Your task to perform on an android device: turn off notifications settings in the gmail app Image 0: 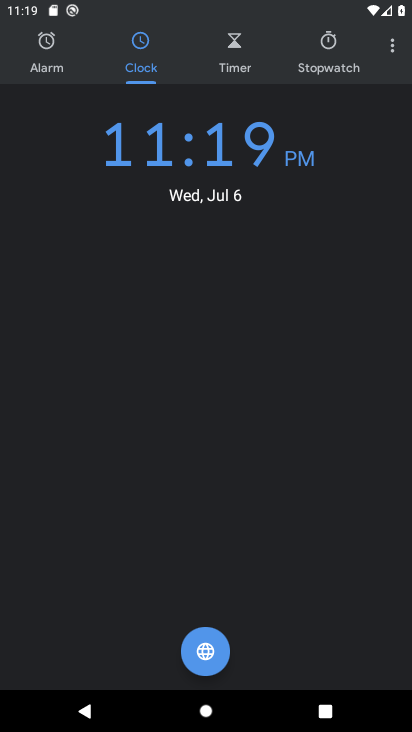
Step 0: press home button
Your task to perform on an android device: turn off notifications settings in the gmail app Image 1: 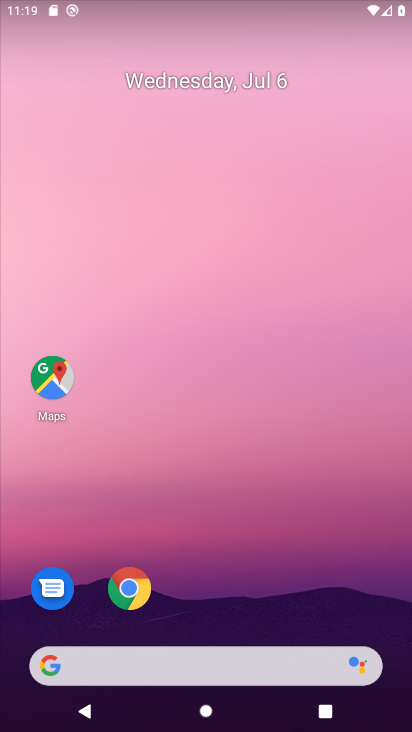
Step 1: drag from (227, 313) to (288, 27)
Your task to perform on an android device: turn off notifications settings in the gmail app Image 2: 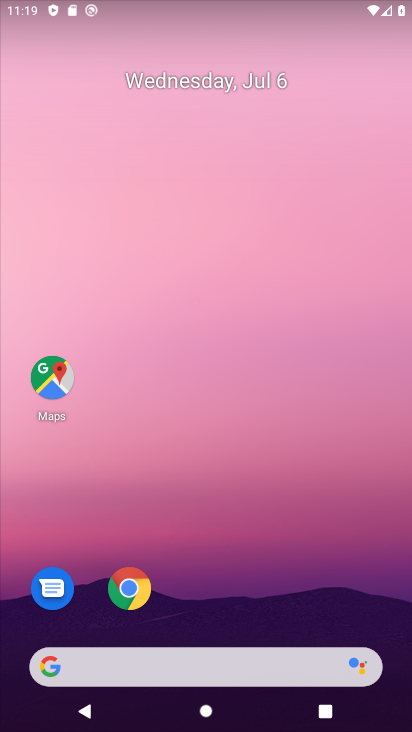
Step 2: drag from (205, 628) to (403, 293)
Your task to perform on an android device: turn off notifications settings in the gmail app Image 3: 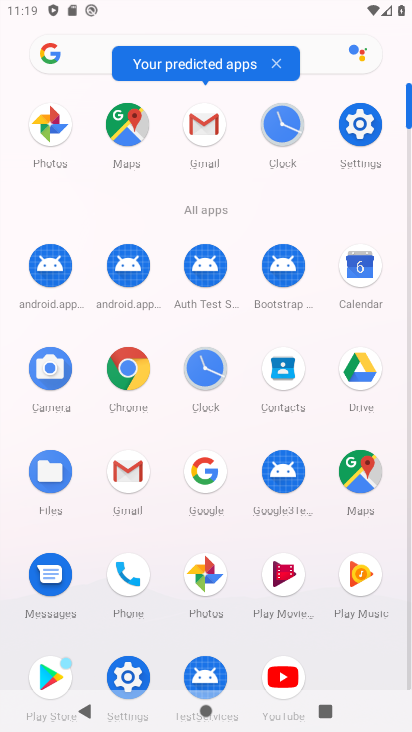
Step 3: click (129, 481)
Your task to perform on an android device: turn off notifications settings in the gmail app Image 4: 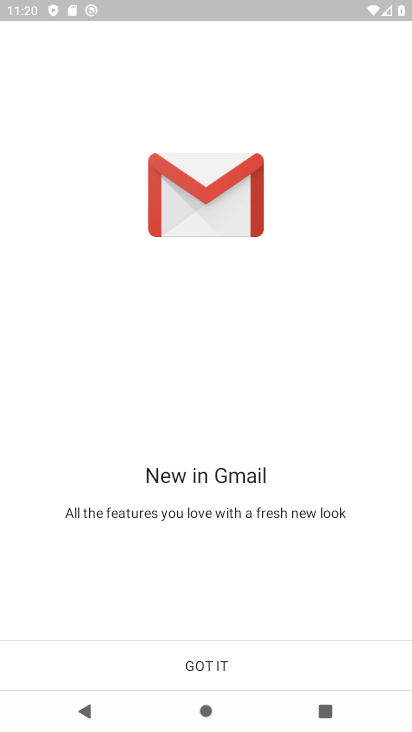
Step 4: click (211, 655)
Your task to perform on an android device: turn off notifications settings in the gmail app Image 5: 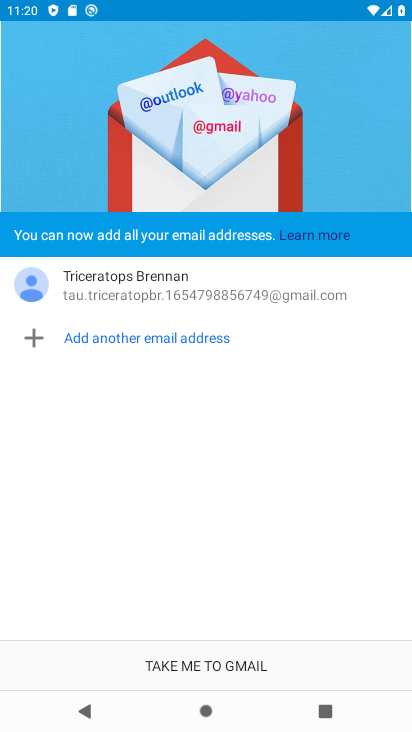
Step 5: click (202, 682)
Your task to perform on an android device: turn off notifications settings in the gmail app Image 6: 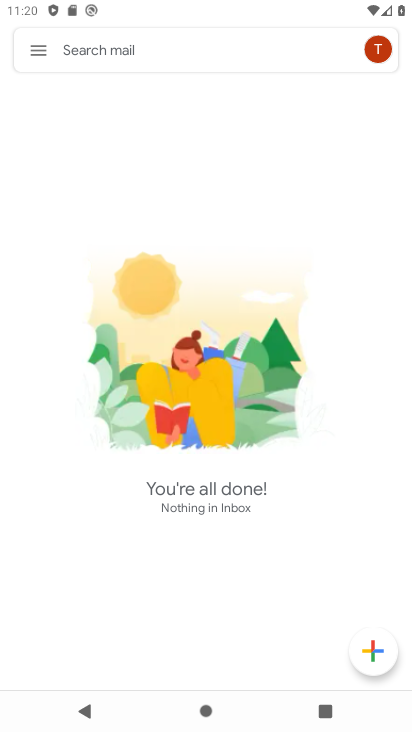
Step 6: click (43, 50)
Your task to perform on an android device: turn off notifications settings in the gmail app Image 7: 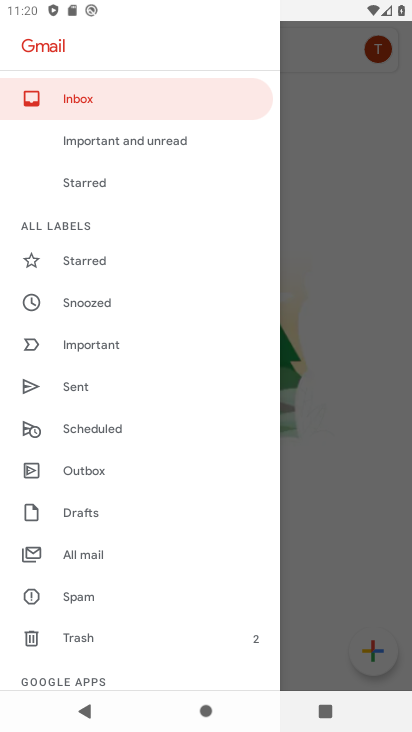
Step 7: drag from (117, 579) to (109, 248)
Your task to perform on an android device: turn off notifications settings in the gmail app Image 8: 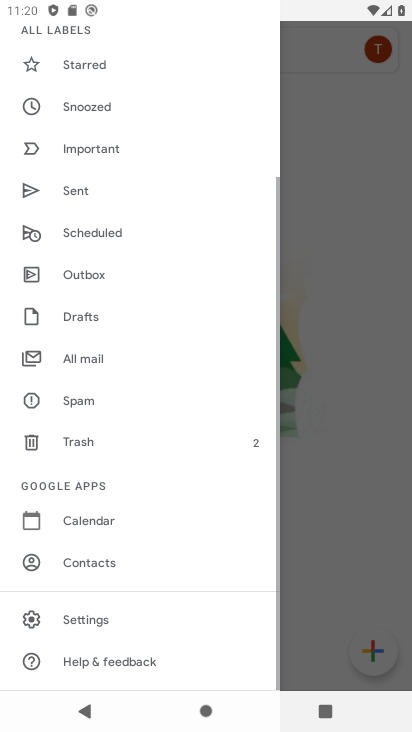
Step 8: drag from (105, 609) to (147, 348)
Your task to perform on an android device: turn off notifications settings in the gmail app Image 9: 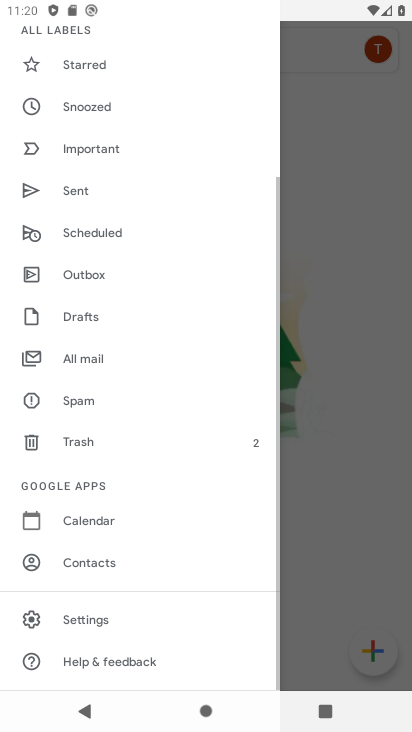
Step 9: drag from (100, 625) to (126, 394)
Your task to perform on an android device: turn off notifications settings in the gmail app Image 10: 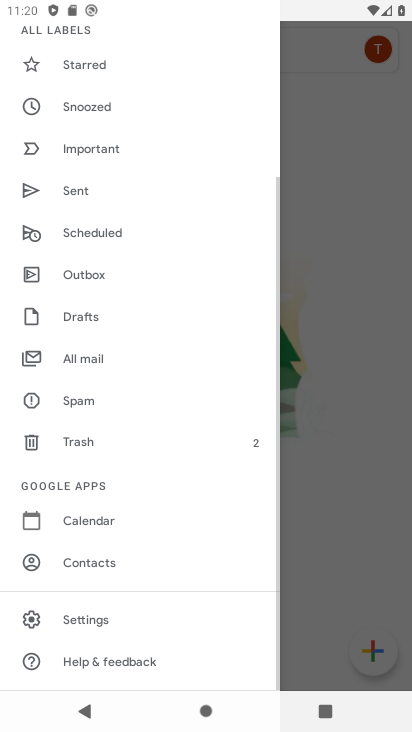
Step 10: click (83, 626)
Your task to perform on an android device: turn off notifications settings in the gmail app Image 11: 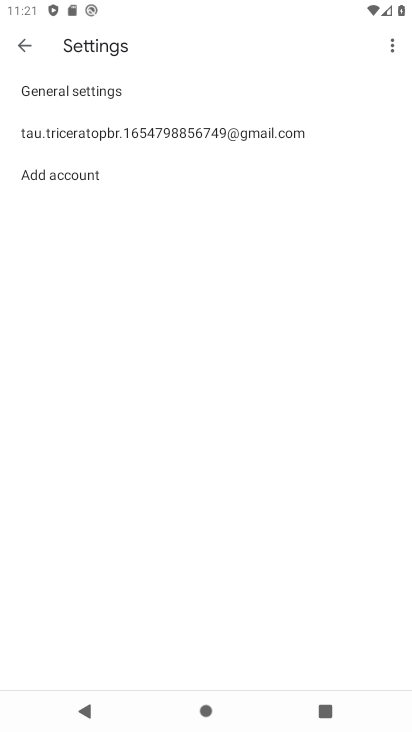
Step 11: click (87, 91)
Your task to perform on an android device: turn off notifications settings in the gmail app Image 12: 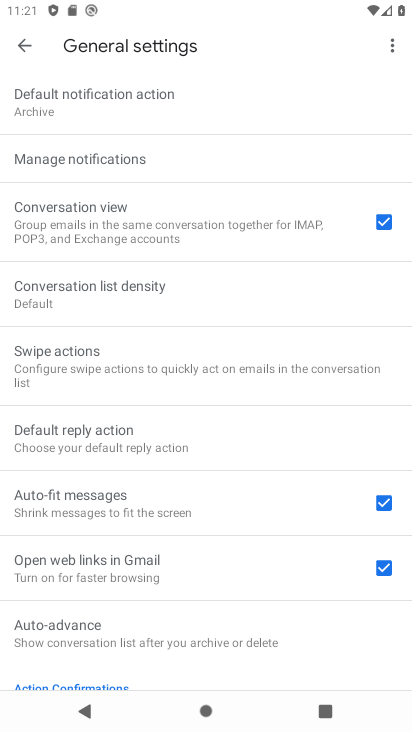
Step 12: click (101, 158)
Your task to perform on an android device: turn off notifications settings in the gmail app Image 13: 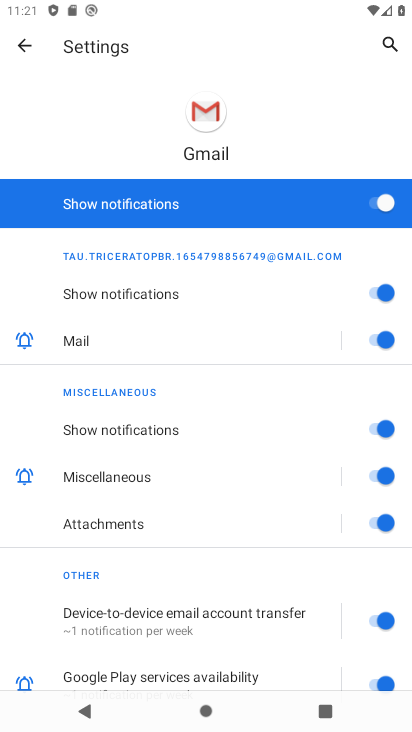
Step 13: click (261, 209)
Your task to perform on an android device: turn off notifications settings in the gmail app Image 14: 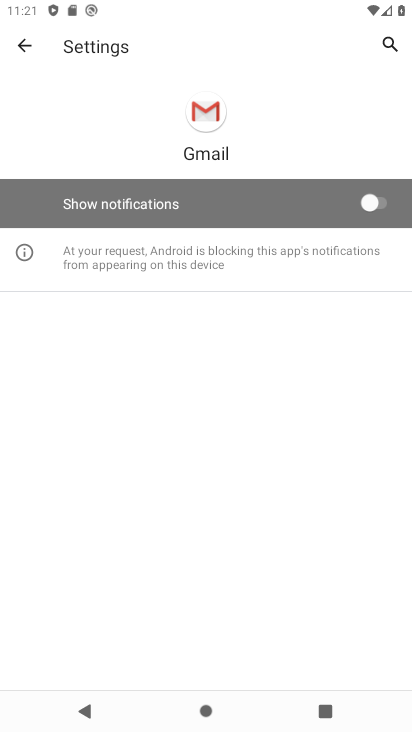
Step 14: task complete